Your task to perform on an android device: Open Google Maps and go to "Timeline" Image 0: 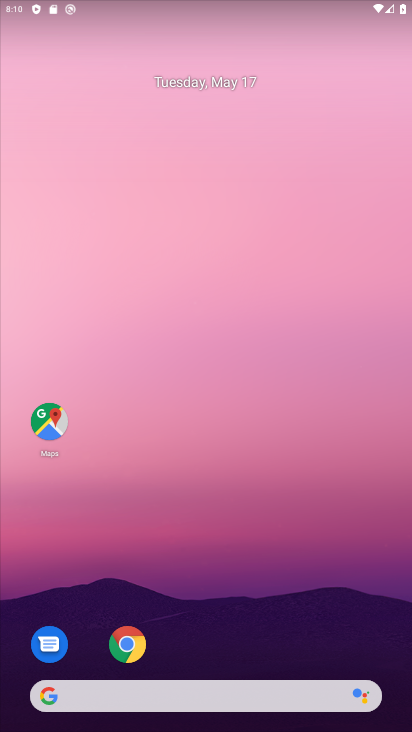
Step 0: click (60, 423)
Your task to perform on an android device: Open Google Maps and go to "Timeline" Image 1: 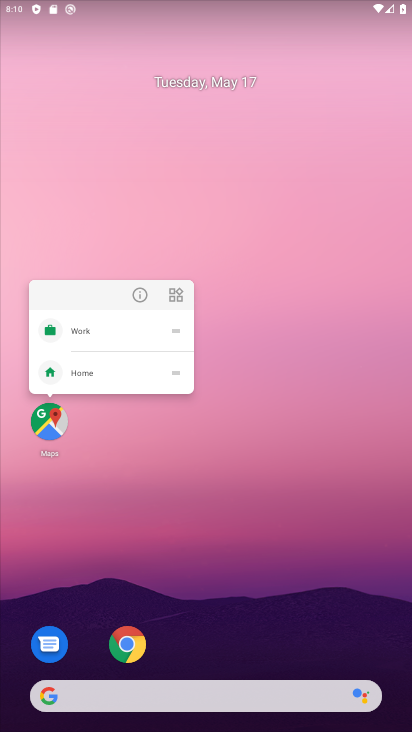
Step 1: click (60, 423)
Your task to perform on an android device: Open Google Maps and go to "Timeline" Image 2: 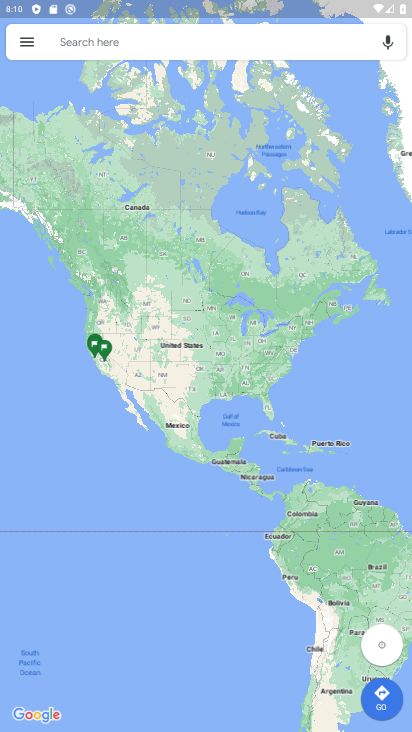
Step 2: click (25, 42)
Your task to perform on an android device: Open Google Maps and go to "Timeline" Image 3: 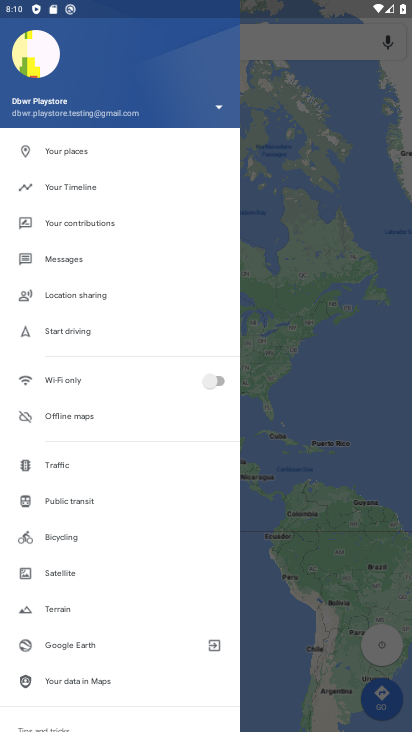
Step 3: click (82, 183)
Your task to perform on an android device: Open Google Maps and go to "Timeline" Image 4: 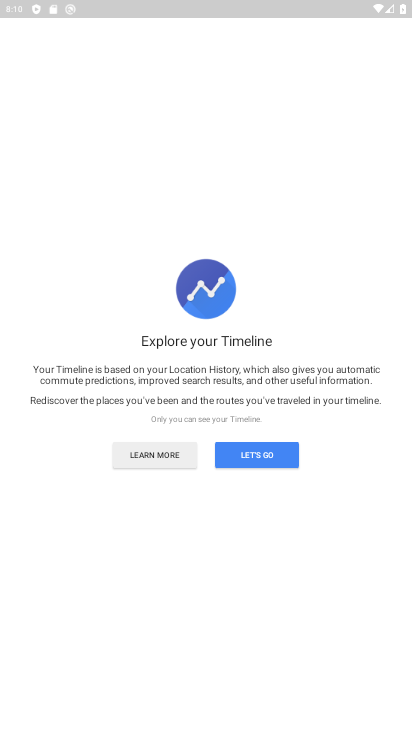
Step 4: click (258, 457)
Your task to perform on an android device: Open Google Maps and go to "Timeline" Image 5: 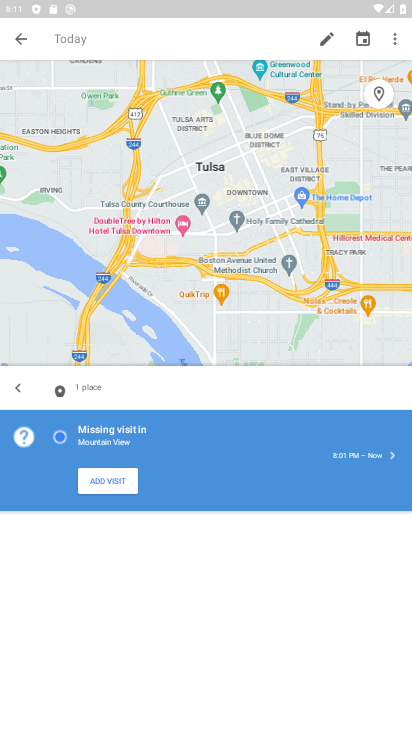
Step 5: task complete